Your task to perform on an android device: Go to internet settings Image 0: 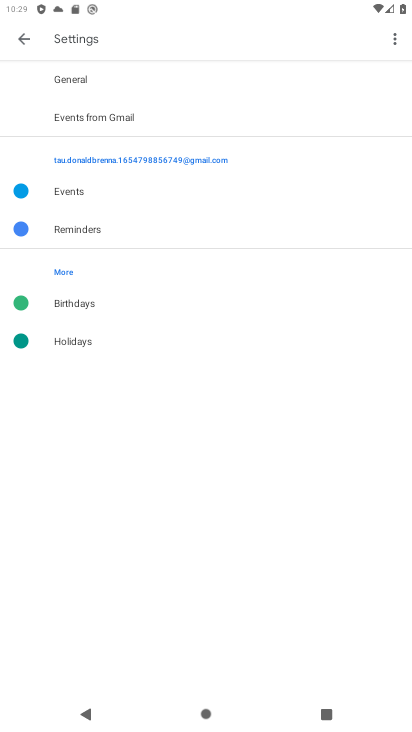
Step 0: press home button
Your task to perform on an android device: Go to internet settings Image 1: 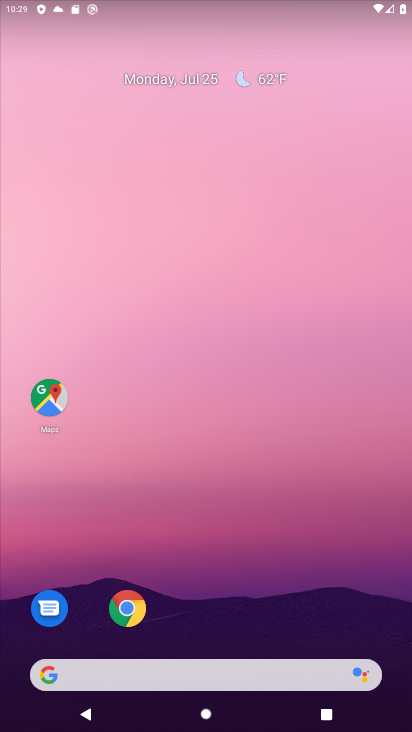
Step 1: drag from (226, 599) to (178, 10)
Your task to perform on an android device: Go to internet settings Image 2: 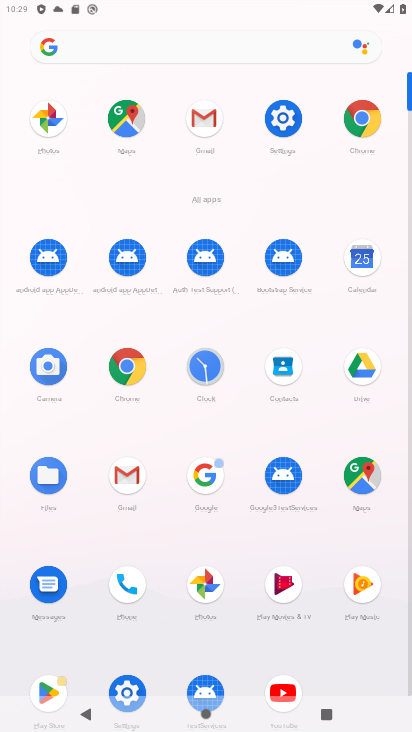
Step 2: click (133, 684)
Your task to perform on an android device: Go to internet settings Image 3: 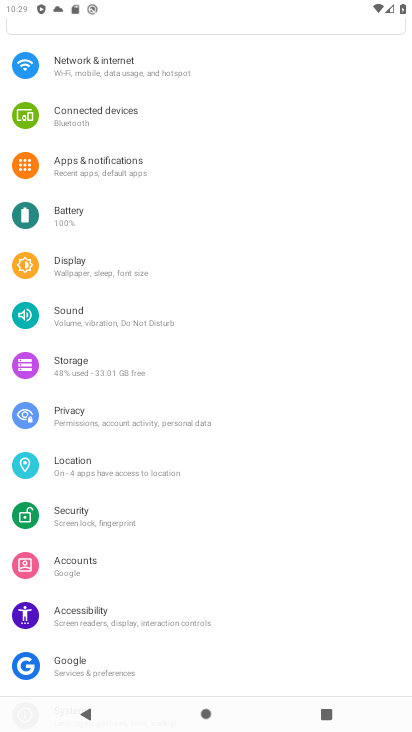
Step 3: click (135, 67)
Your task to perform on an android device: Go to internet settings Image 4: 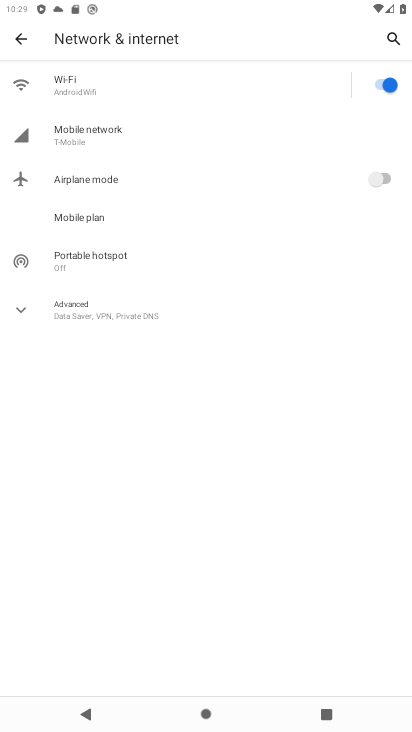
Step 4: task complete